Your task to perform on an android device: empty trash in google photos Image 0: 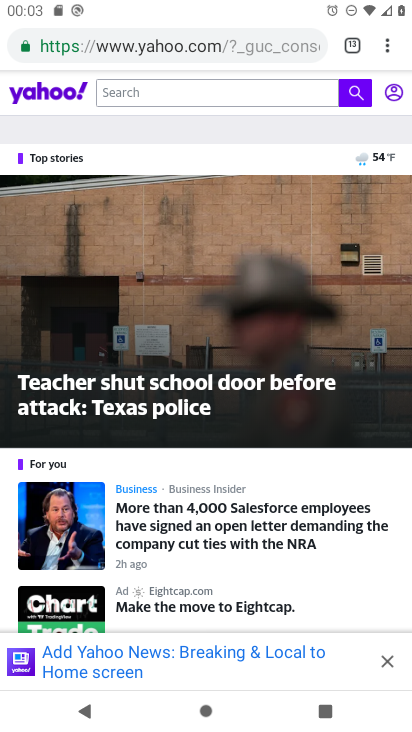
Step 0: press home button
Your task to perform on an android device: empty trash in google photos Image 1: 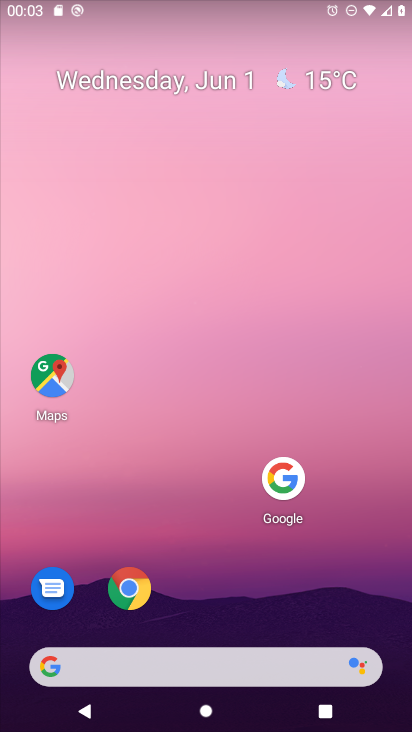
Step 1: drag from (147, 673) to (313, 104)
Your task to perform on an android device: empty trash in google photos Image 2: 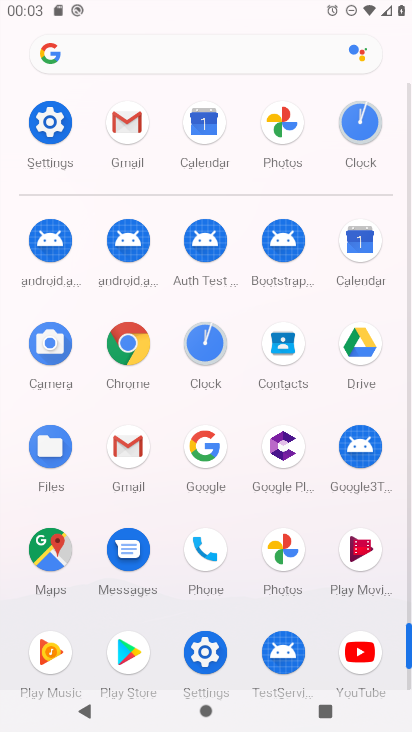
Step 2: click (284, 553)
Your task to perform on an android device: empty trash in google photos Image 3: 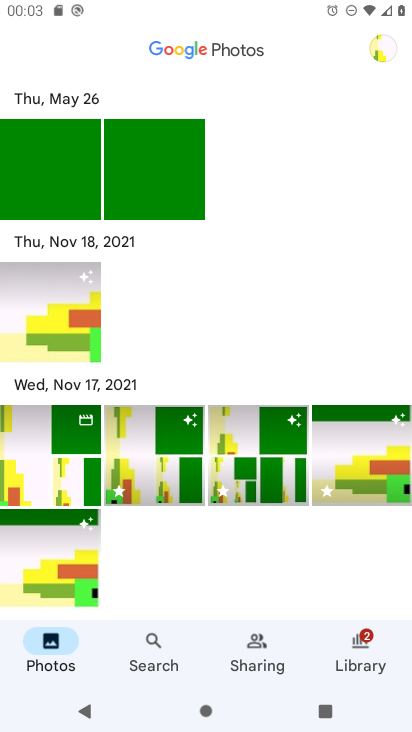
Step 3: click (365, 662)
Your task to perform on an android device: empty trash in google photos Image 4: 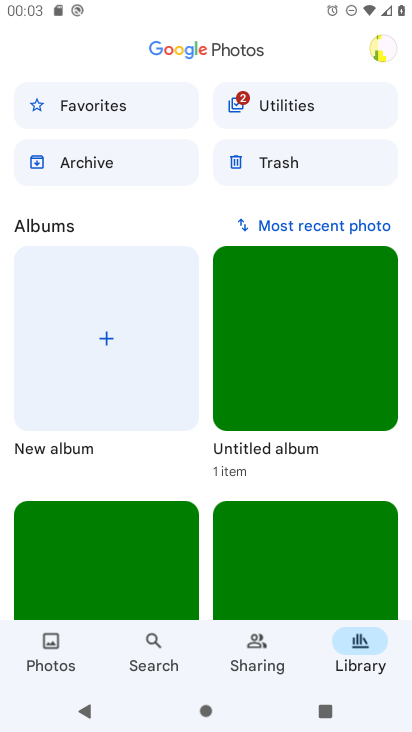
Step 4: click (295, 158)
Your task to perform on an android device: empty trash in google photos Image 5: 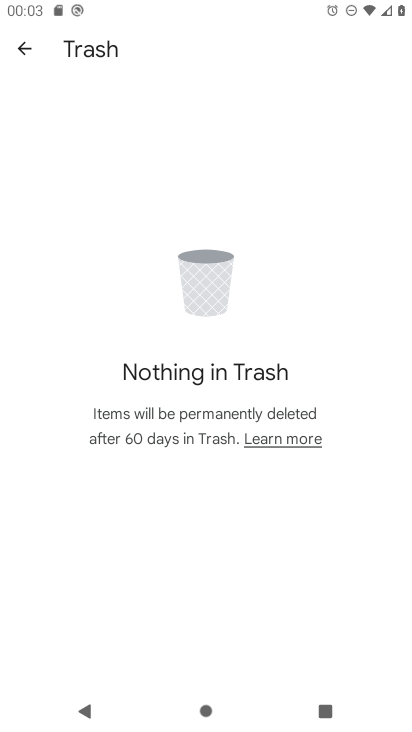
Step 5: task complete